Your task to perform on an android device: open chrome privacy settings Image 0: 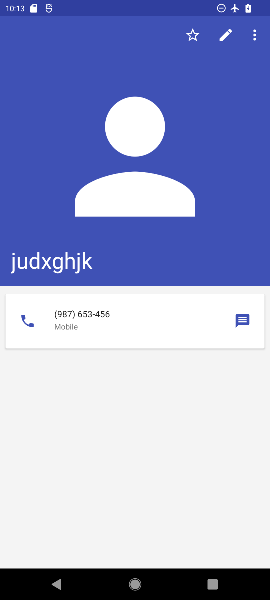
Step 0: press home button
Your task to perform on an android device: open chrome privacy settings Image 1: 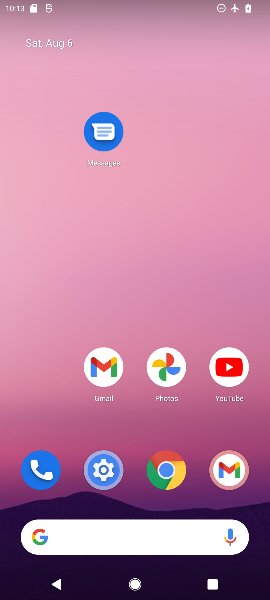
Step 1: drag from (140, 548) to (111, 203)
Your task to perform on an android device: open chrome privacy settings Image 2: 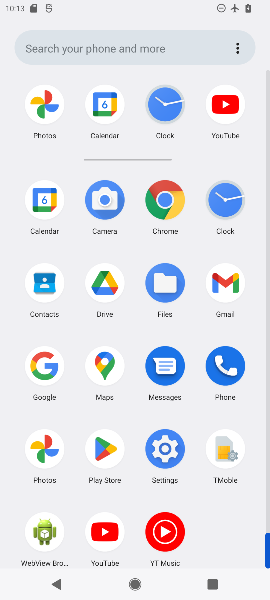
Step 2: click (164, 203)
Your task to perform on an android device: open chrome privacy settings Image 3: 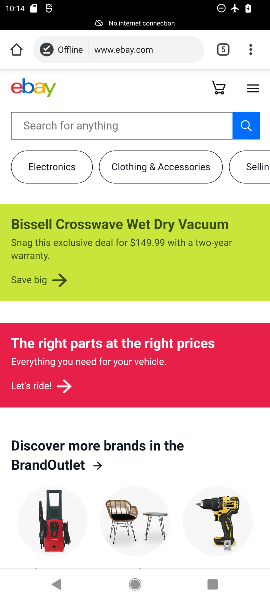
Step 3: click (253, 44)
Your task to perform on an android device: open chrome privacy settings Image 4: 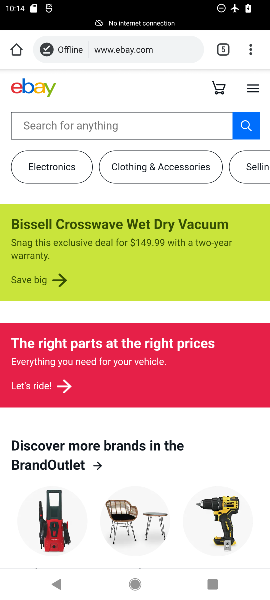
Step 4: click (249, 45)
Your task to perform on an android device: open chrome privacy settings Image 5: 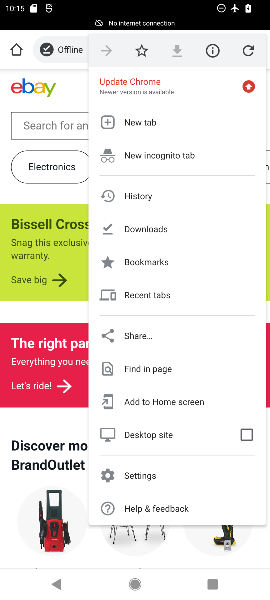
Step 5: click (141, 468)
Your task to perform on an android device: open chrome privacy settings Image 6: 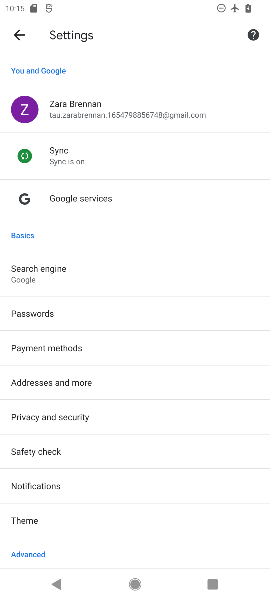
Step 6: drag from (158, 537) to (127, 340)
Your task to perform on an android device: open chrome privacy settings Image 7: 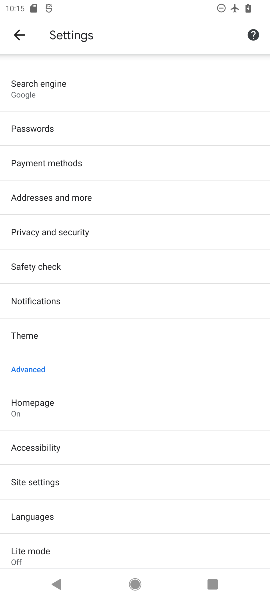
Step 7: drag from (103, 530) to (43, 251)
Your task to perform on an android device: open chrome privacy settings Image 8: 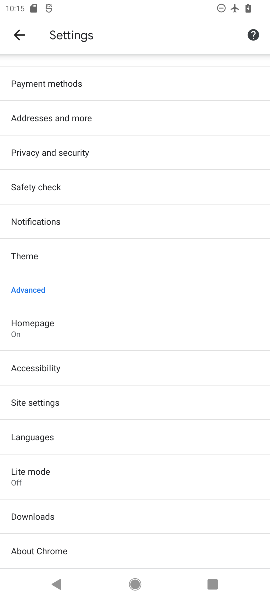
Step 8: click (40, 149)
Your task to perform on an android device: open chrome privacy settings Image 9: 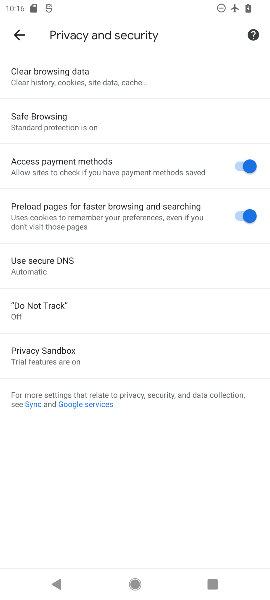
Step 9: task complete